Your task to perform on an android device: open app "Google Duo" Image 0: 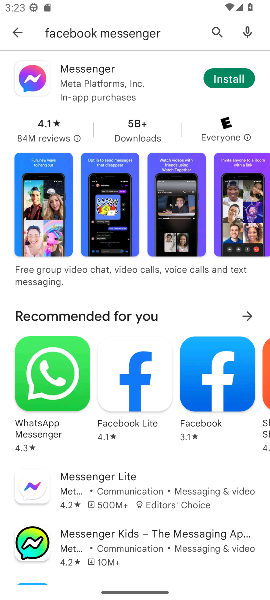
Step 0: press home button
Your task to perform on an android device: open app "Google Duo" Image 1: 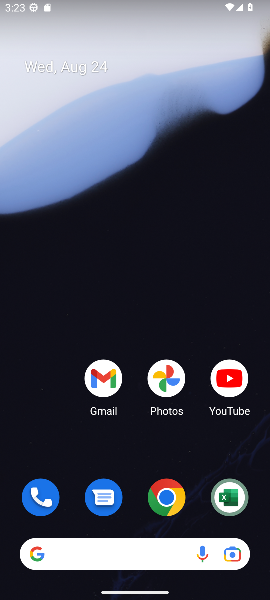
Step 1: drag from (132, 547) to (143, 146)
Your task to perform on an android device: open app "Google Duo" Image 2: 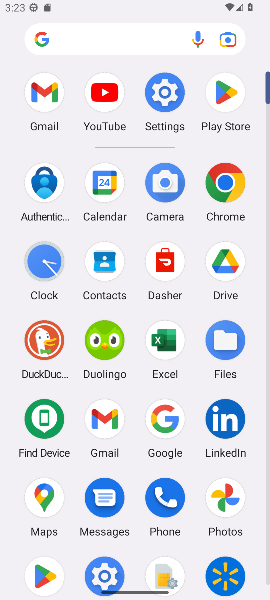
Step 2: click (226, 95)
Your task to perform on an android device: open app "Google Duo" Image 3: 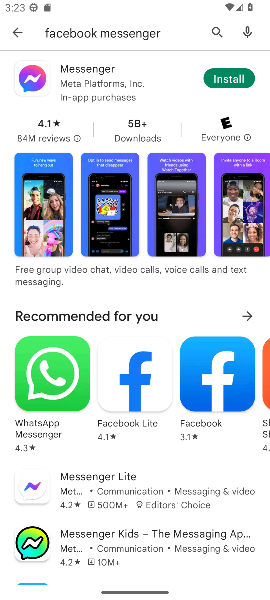
Step 3: press back button
Your task to perform on an android device: open app "Google Duo" Image 4: 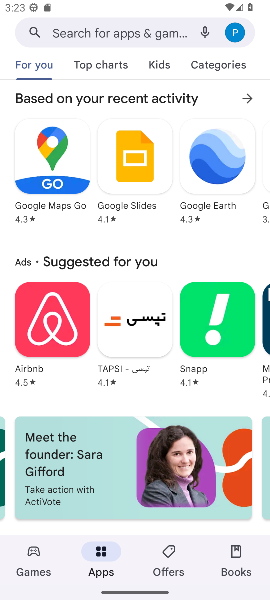
Step 4: click (143, 34)
Your task to perform on an android device: open app "Google Duo" Image 5: 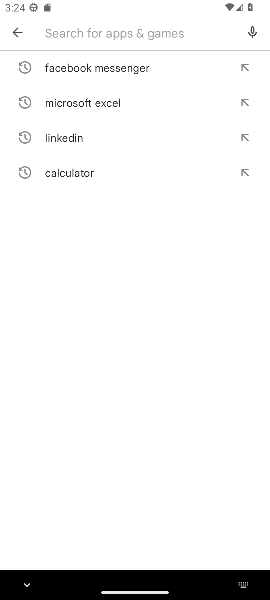
Step 5: type "Google Duo"
Your task to perform on an android device: open app "Google Duo" Image 6: 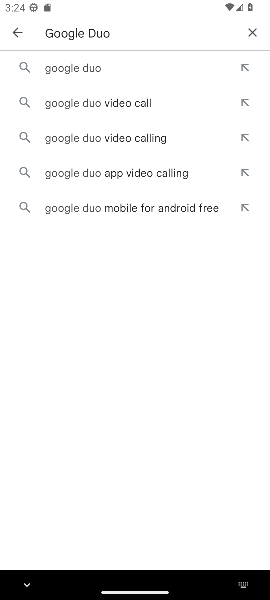
Step 6: click (62, 71)
Your task to perform on an android device: open app "Google Duo" Image 7: 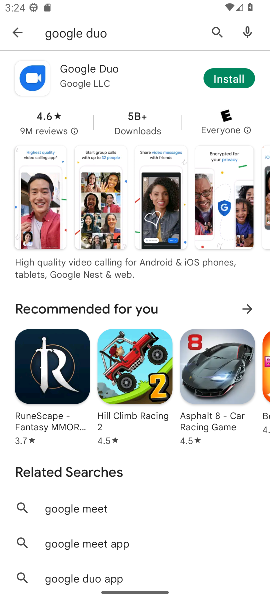
Step 7: task complete